Your task to perform on an android device: open app "Adobe Express: Graphic Design" Image 0: 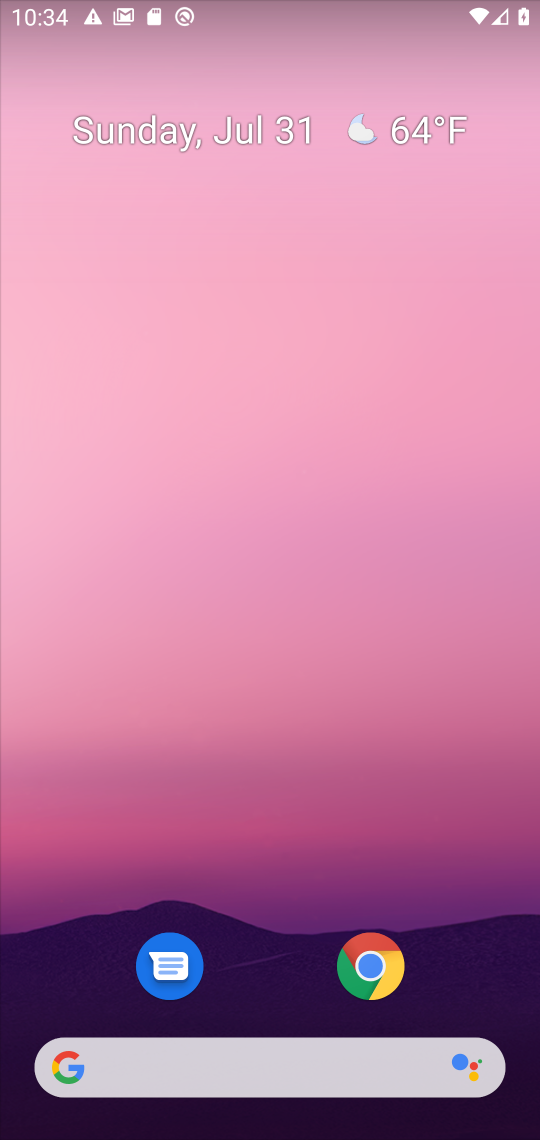
Step 0: drag from (239, 759) to (213, 15)
Your task to perform on an android device: open app "Adobe Express: Graphic Design" Image 1: 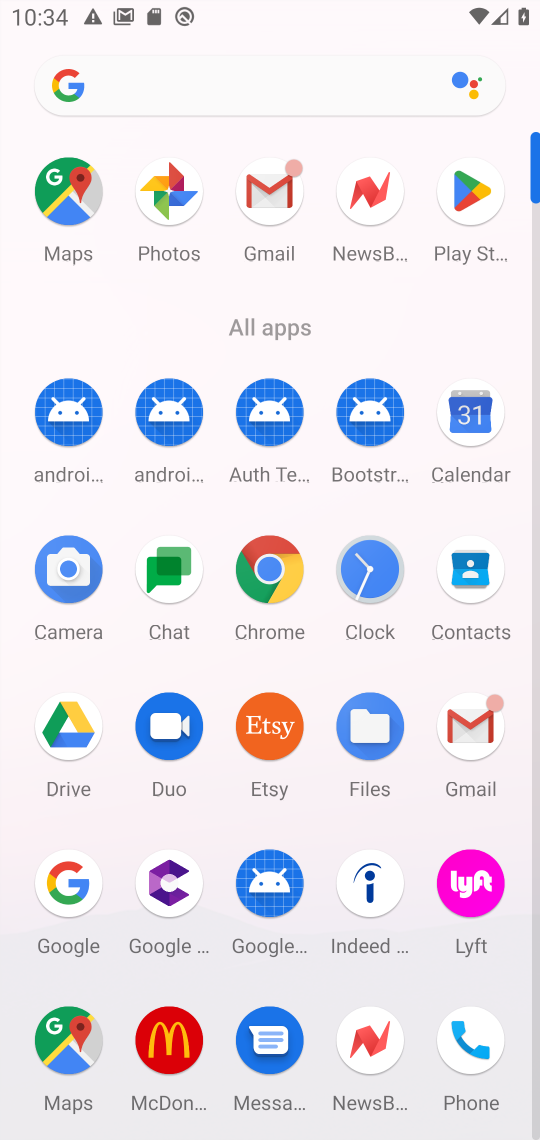
Step 1: click (460, 229)
Your task to perform on an android device: open app "Adobe Express: Graphic Design" Image 2: 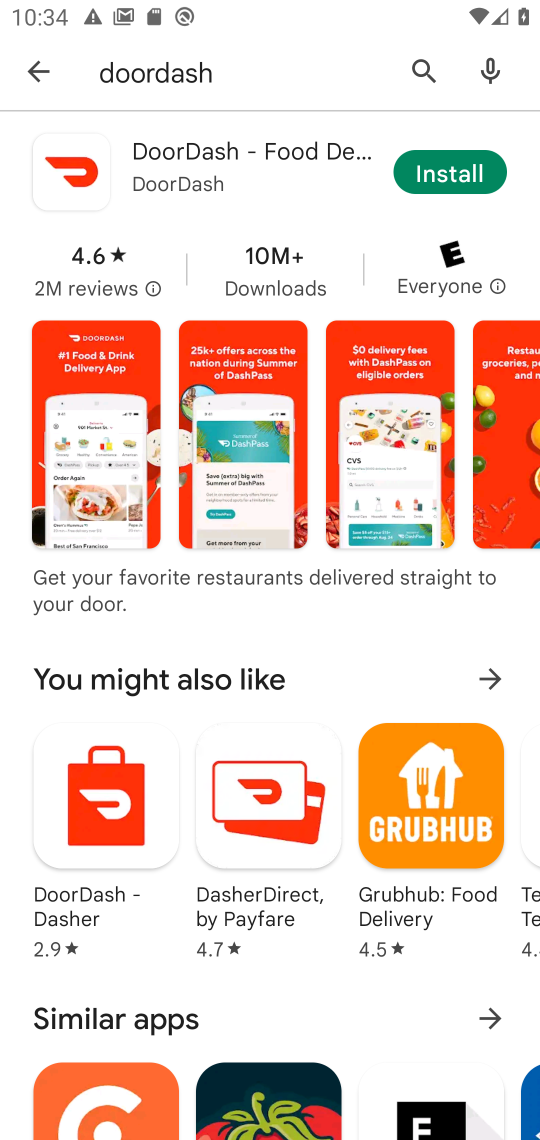
Step 2: click (185, 82)
Your task to perform on an android device: open app "Adobe Express: Graphic Design" Image 3: 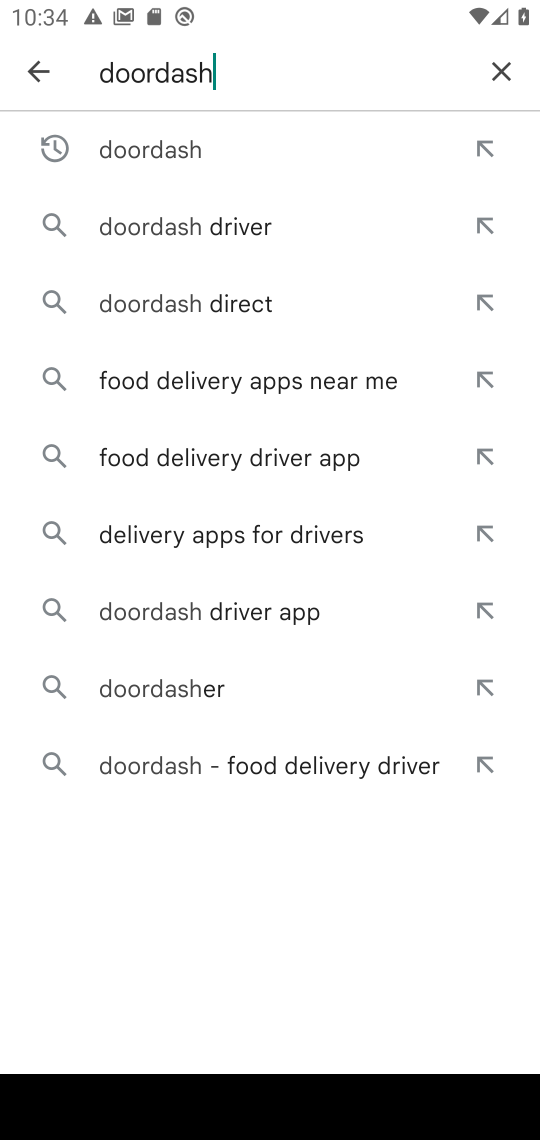
Step 3: click (499, 78)
Your task to perform on an android device: open app "Adobe Express: Graphic Design" Image 4: 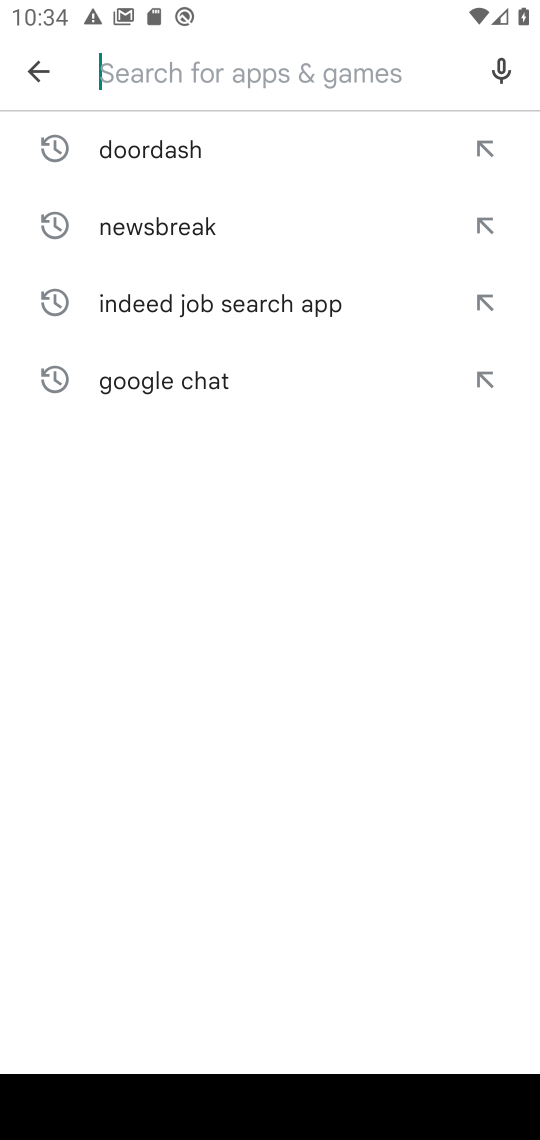
Step 4: type "Adobe Express"
Your task to perform on an android device: open app "Adobe Express: Graphic Design" Image 5: 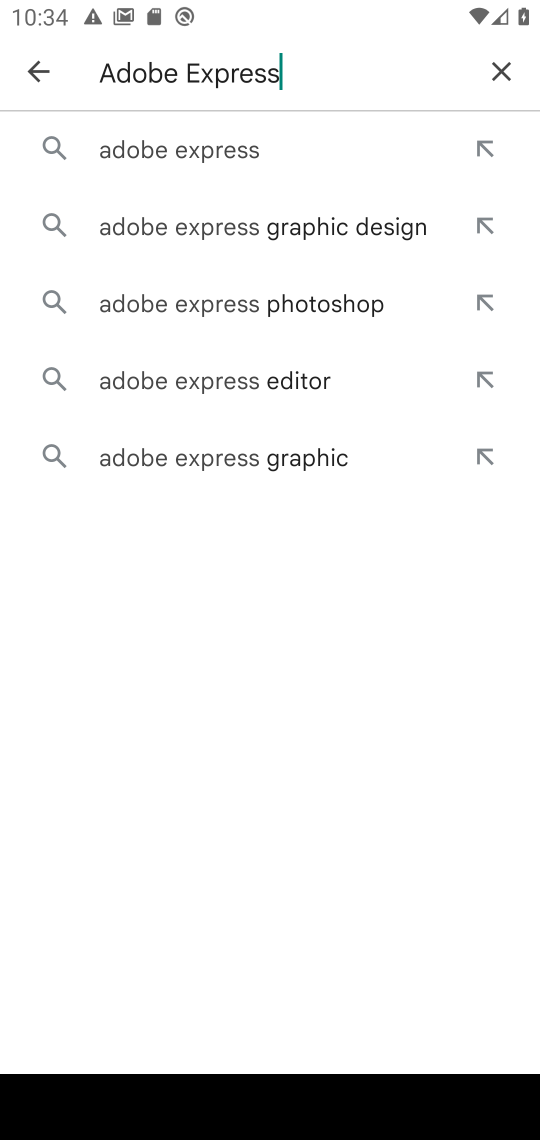
Step 5: click (208, 138)
Your task to perform on an android device: open app "Adobe Express: Graphic Design" Image 6: 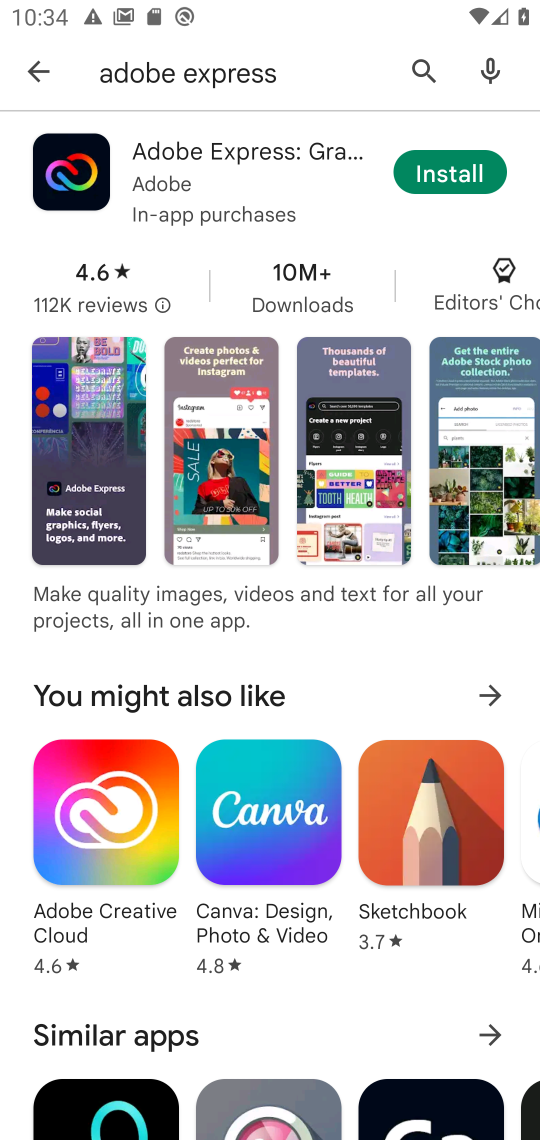
Step 6: task complete